Your task to perform on an android device: Open CNN.com Image 0: 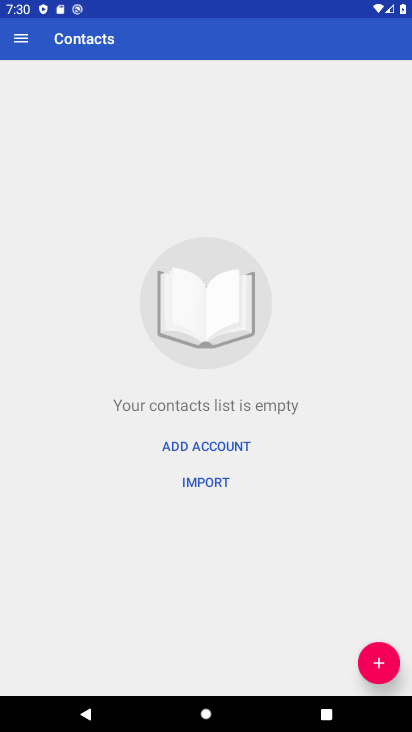
Step 0: drag from (277, 501) to (324, 251)
Your task to perform on an android device: Open CNN.com Image 1: 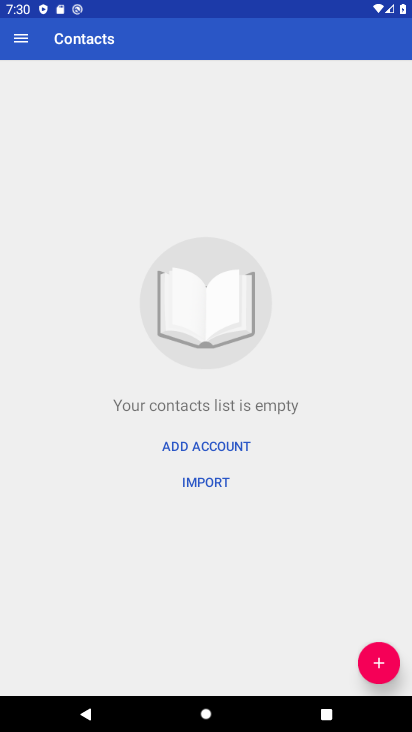
Step 1: press home button
Your task to perform on an android device: Open CNN.com Image 2: 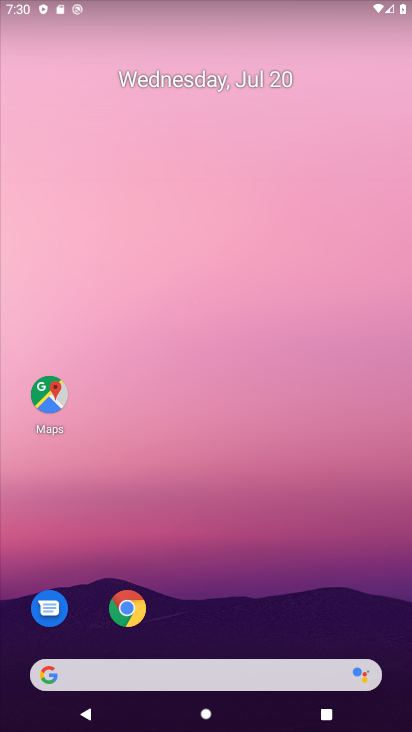
Step 2: drag from (186, 612) to (205, 5)
Your task to perform on an android device: Open CNN.com Image 3: 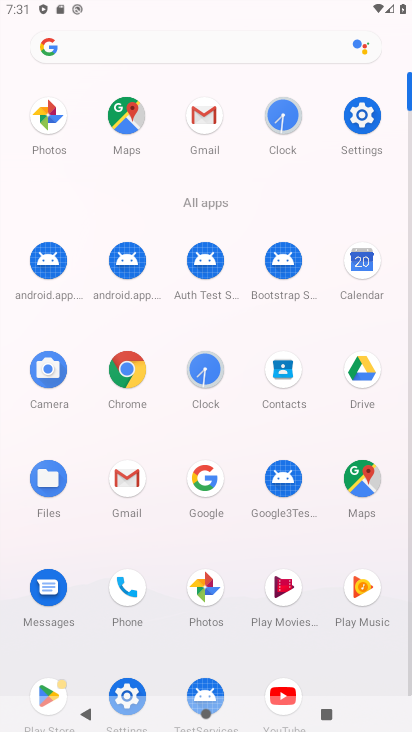
Step 3: click (162, 54)
Your task to perform on an android device: Open CNN.com Image 4: 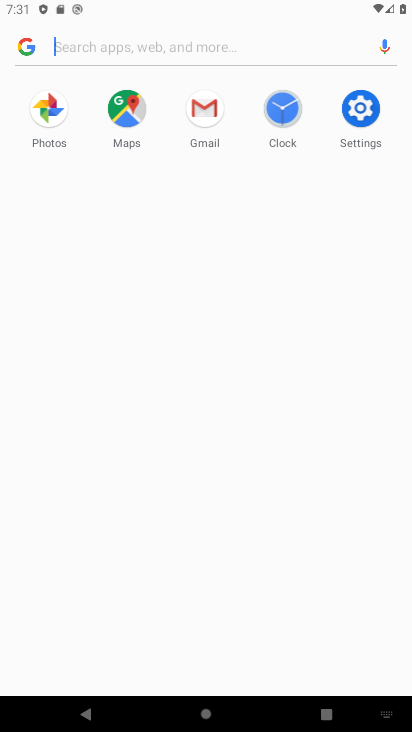
Step 4: type "cnn.com"
Your task to perform on an android device: Open CNN.com Image 5: 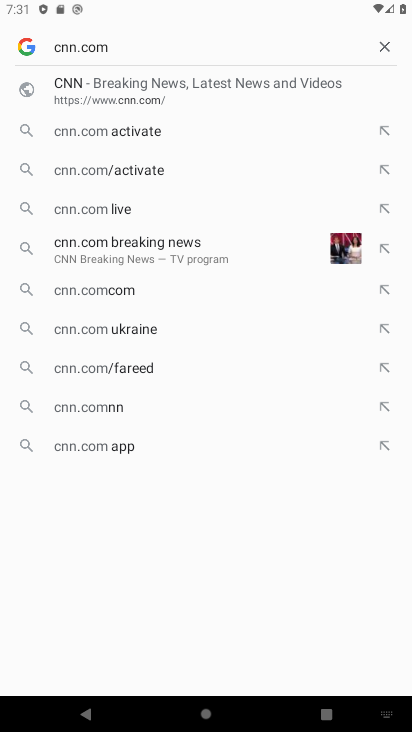
Step 5: click (79, 96)
Your task to perform on an android device: Open CNN.com Image 6: 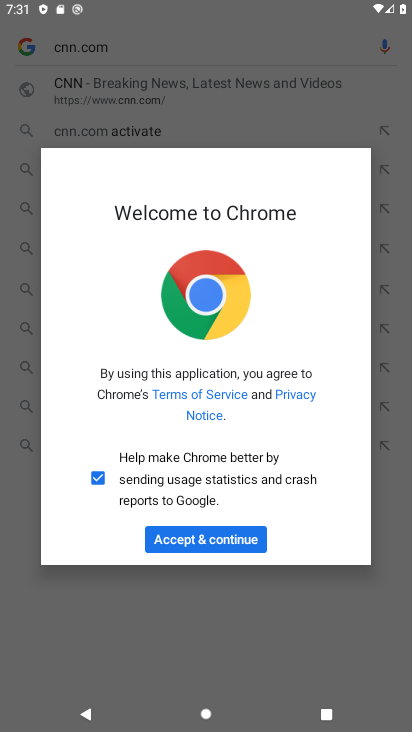
Step 6: click (195, 540)
Your task to perform on an android device: Open CNN.com Image 7: 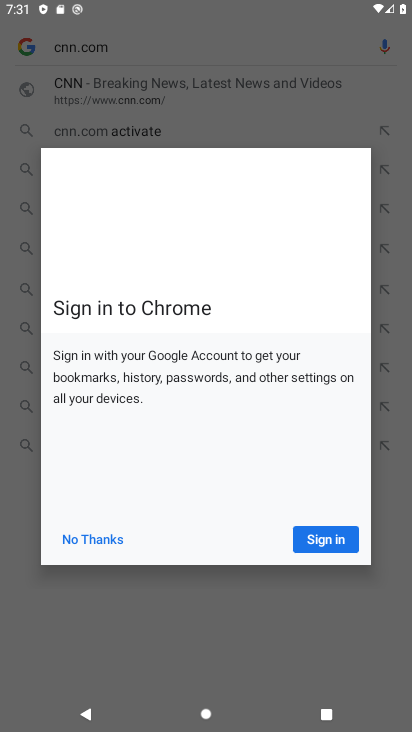
Step 7: click (102, 539)
Your task to perform on an android device: Open CNN.com Image 8: 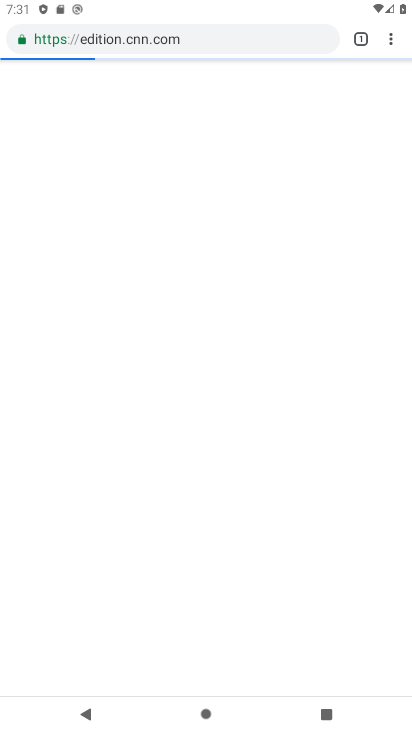
Step 8: click (335, 160)
Your task to perform on an android device: Open CNN.com Image 9: 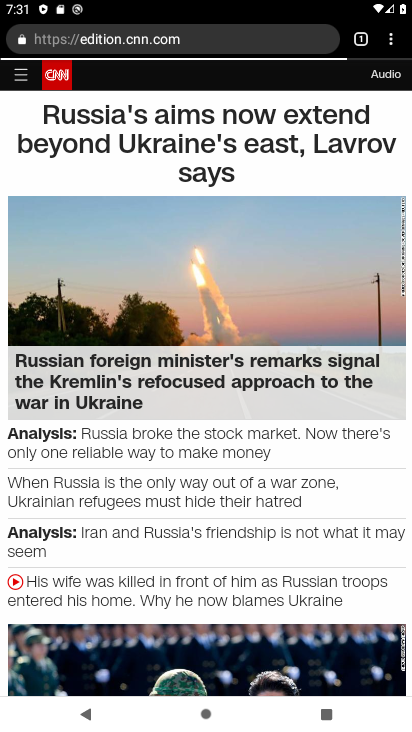
Step 9: task complete